Your task to perform on an android device: Turn off the flashlight Image 0: 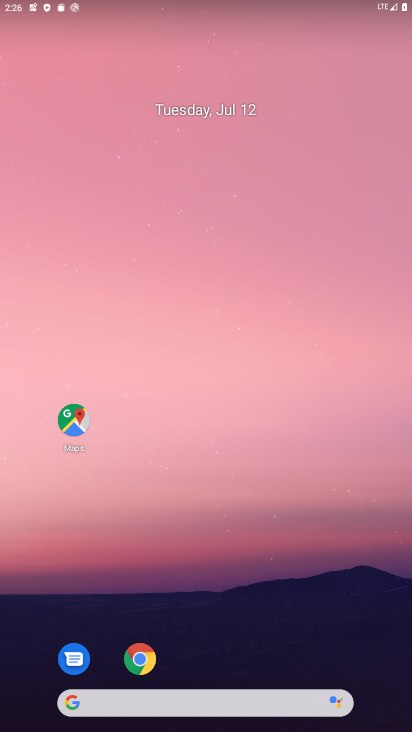
Step 0: drag from (215, 729) to (204, 147)
Your task to perform on an android device: Turn off the flashlight Image 1: 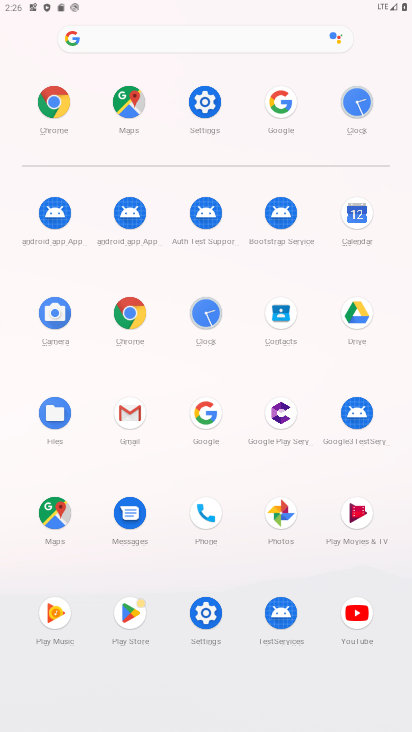
Step 1: click (202, 104)
Your task to perform on an android device: Turn off the flashlight Image 2: 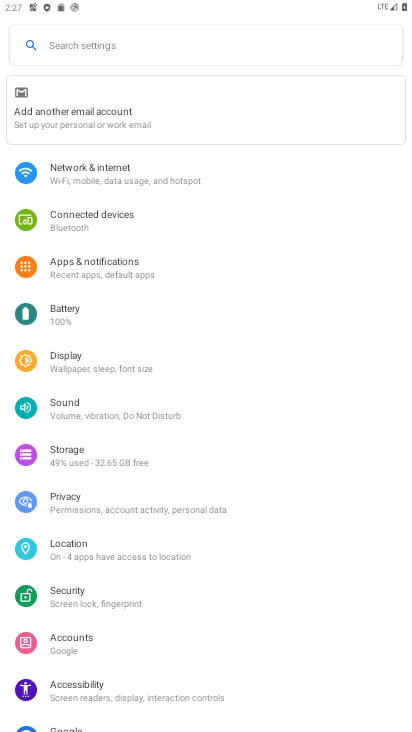
Step 2: click (151, 604)
Your task to perform on an android device: Turn off the flashlight Image 3: 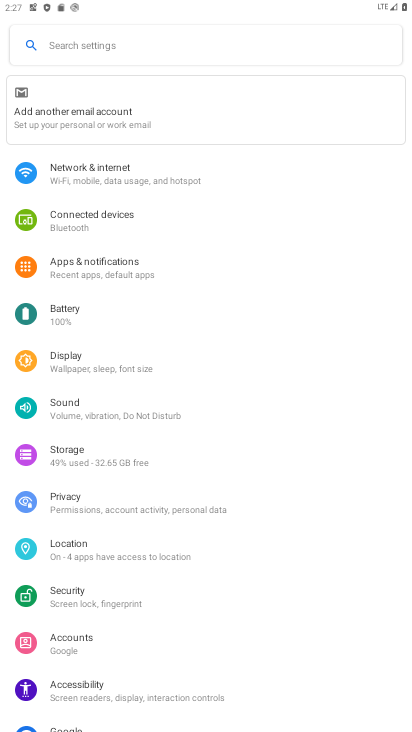
Step 3: drag from (147, 495) to (147, 266)
Your task to perform on an android device: Turn off the flashlight Image 4: 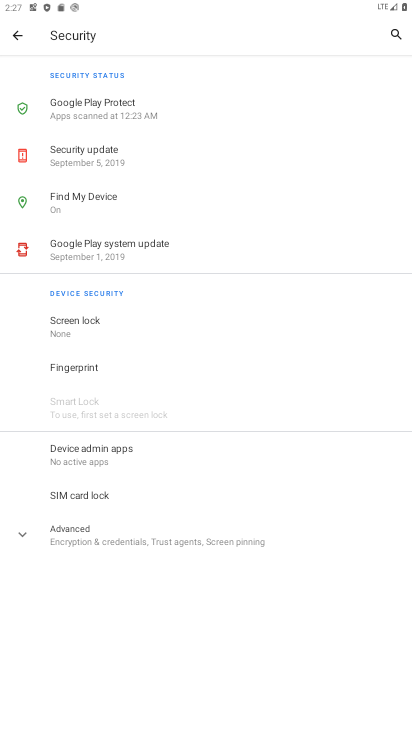
Step 4: click (22, 35)
Your task to perform on an android device: Turn off the flashlight Image 5: 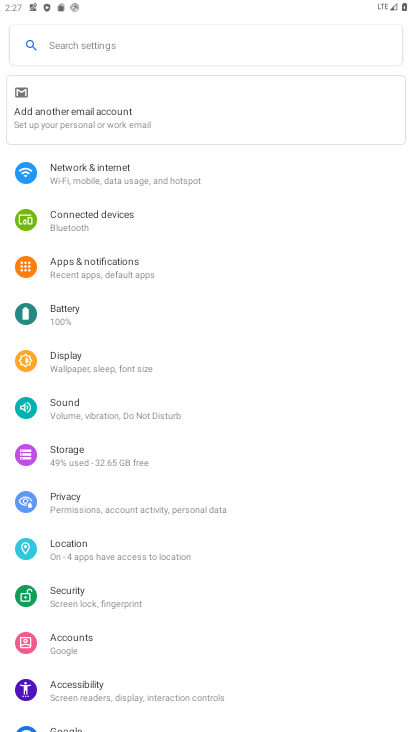
Step 5: task complete